Your task to perform on an android device: Open ESPN.com Image 0: 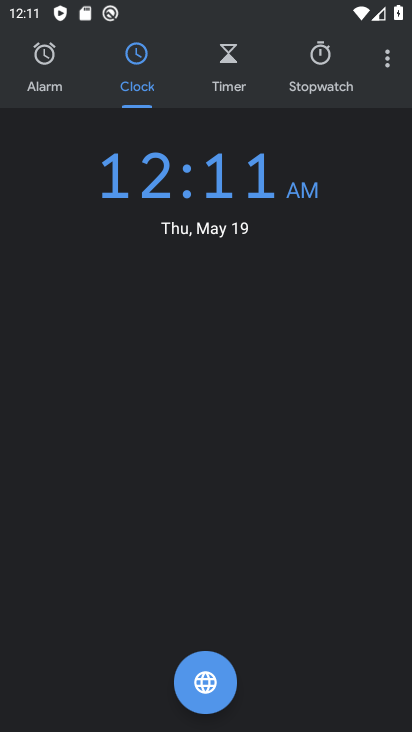
Step 0: press home button
Your task to perform on an android device: Open ESPN.com Image 1: 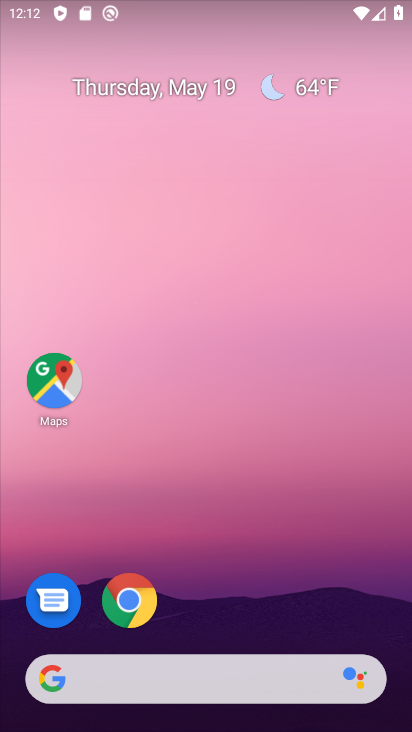
Step 1: drag from (203, 646) to (165, 111)
Your task to perform on an android device: Open ESPN.com Image 2: 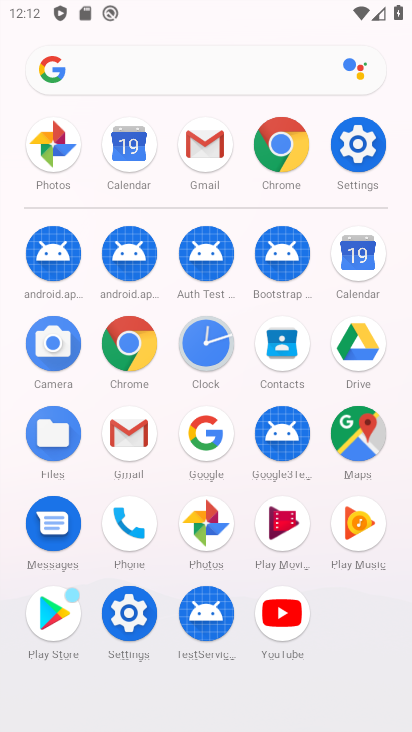
Step 2: click (142, 338)
Your task to perform on an android device: Open ESPN.com Image 3: 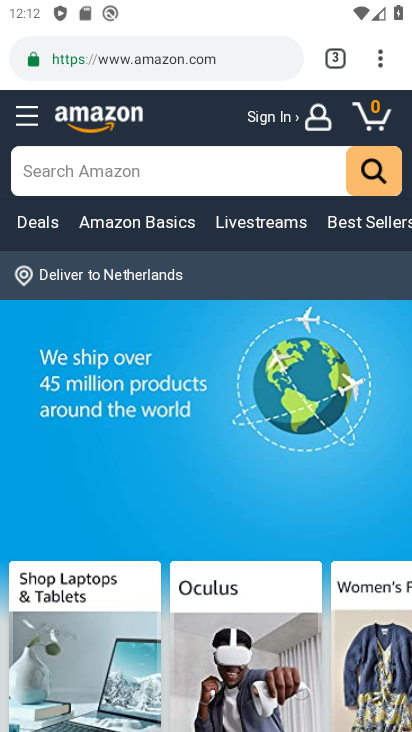
Step 3: click (321, 65)
Your task to perform on an android device: Open ESPN.com Image 4: 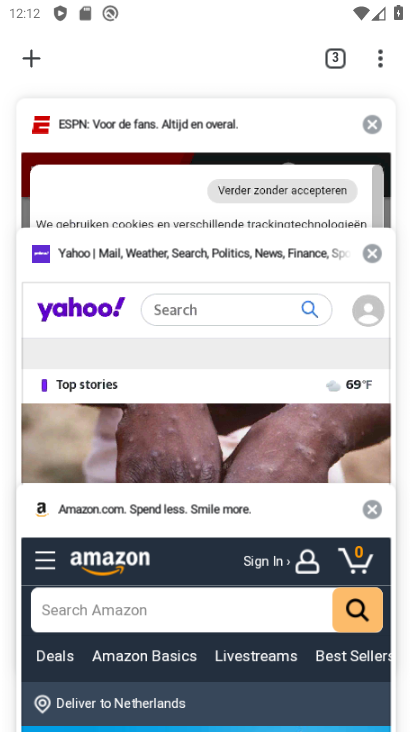
Step 4: click (120, 160)
Your task to perform on an android device: Open ESPN.com Image 5: 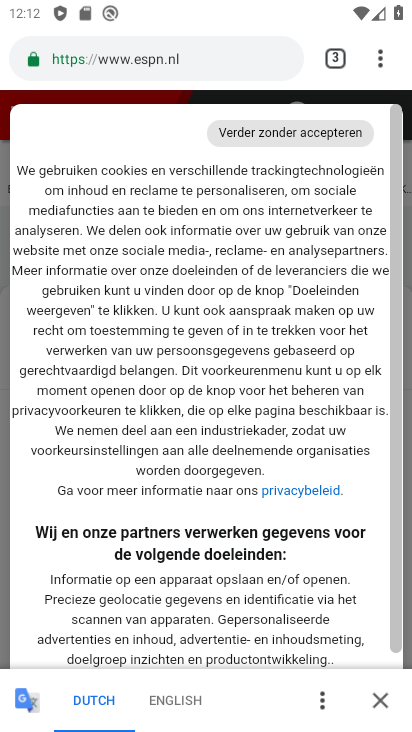
Step 5: drag from (250, 557) to (234, 143)
Your task to perform on an android device: Open ESPN.com Image 6: 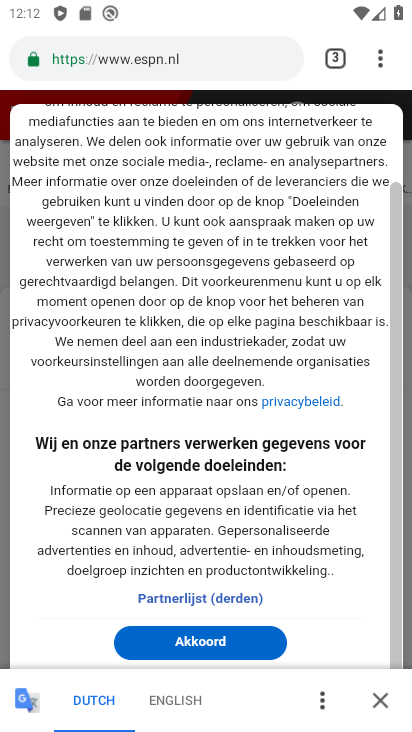
Step 6: click (217, 654)
Your task to perform on an android device: Open ESPN.com Image 7: 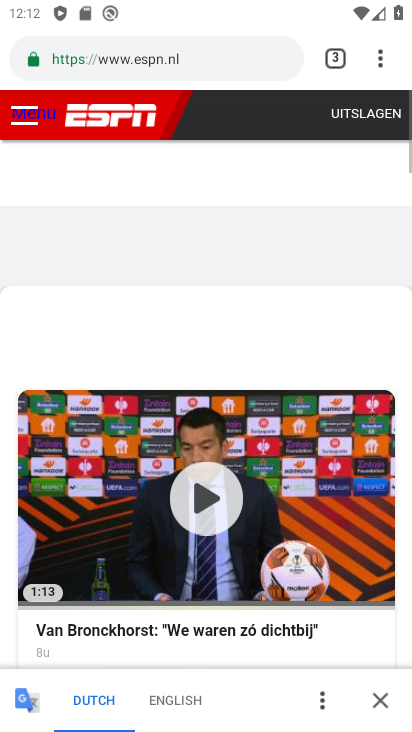
Step 7: task complete